Your task to perform on an android device: turn off picture-in-picture Image 0: 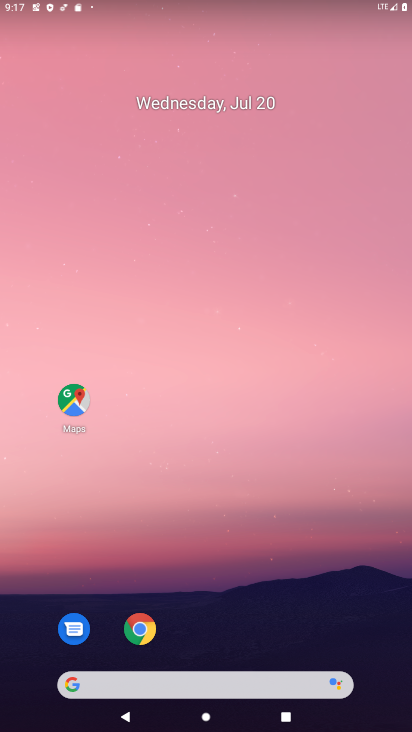
Step 0: press home button
Your task to perform on an android device: turn off picture-in-picture Image 1: 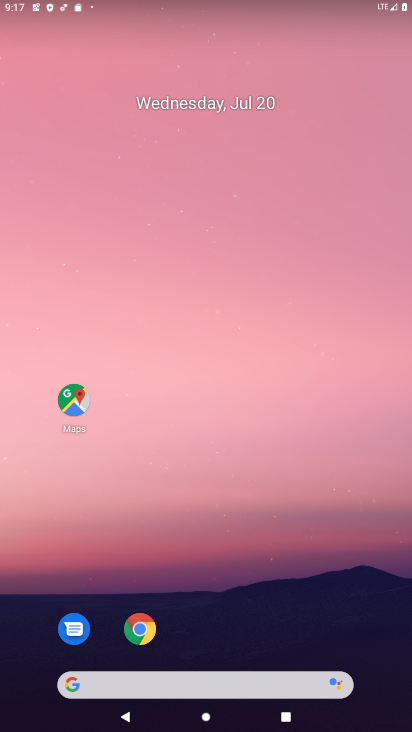
Step 1: click (134, 622)
Your task to perform on an android device: turn off picture-in-picture Image 2: 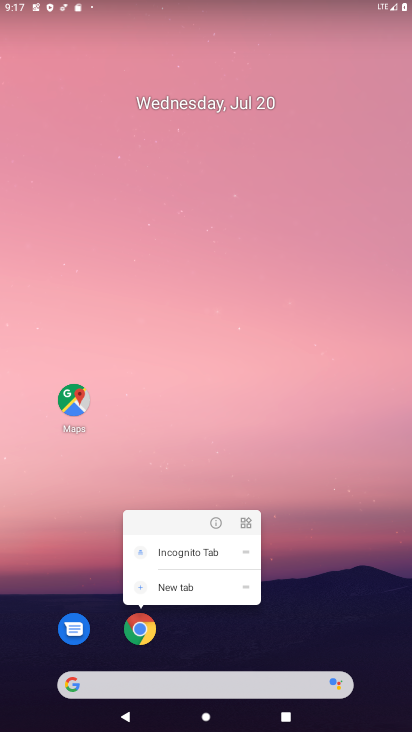
Step 2: click (214, 525)
Your task to perform on an android device: turn off picture-in-picture Image 3: 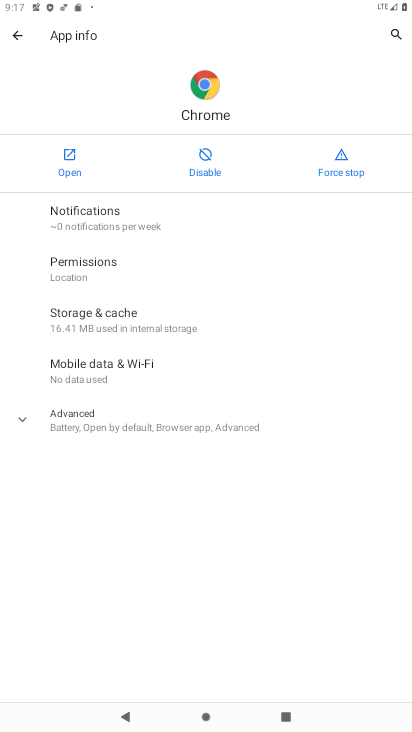
Step 3: click (65, 279)
Your task to perform on an android device: turn off picture-in-picture Image 4: 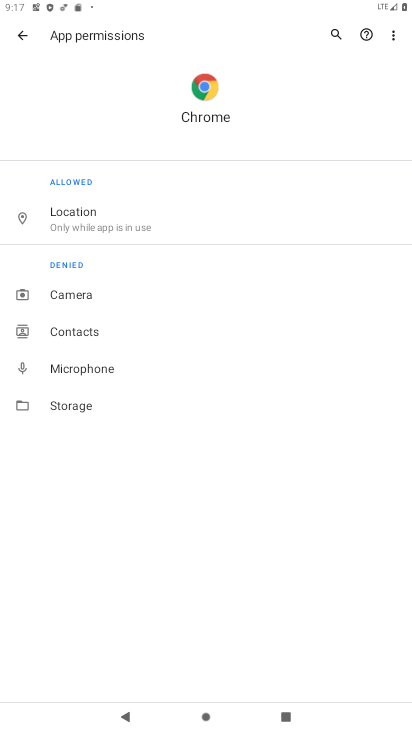
Step 4: click (19, 21)
Your task to perform on an android device: turn off picture-in-picture Image 5: 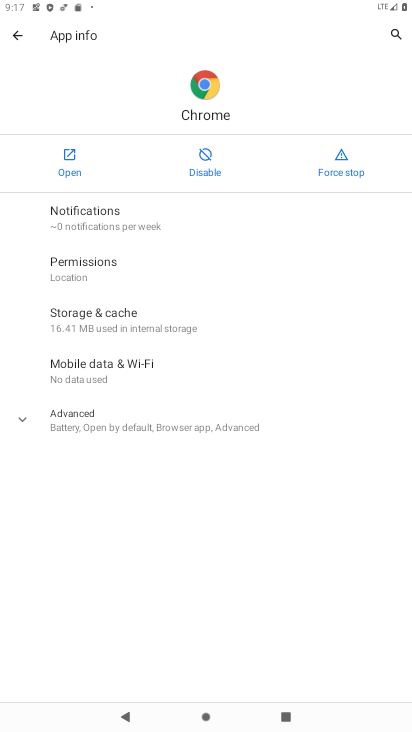
Step 5: click (112, 429)
Your task to perform on an android device: turn off picture-in-picture Image 6: 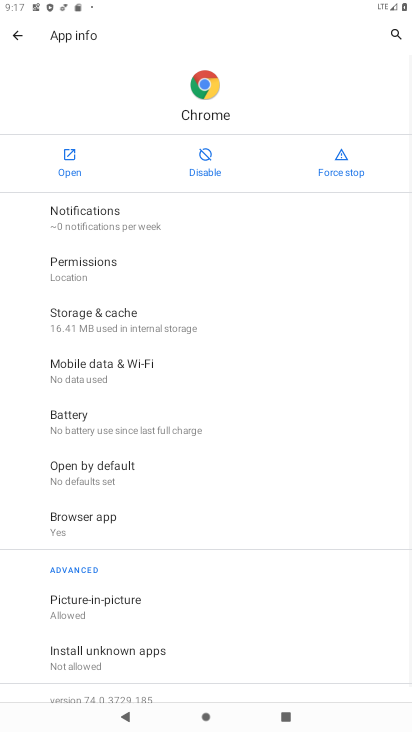
Step 6: click (60, 603)
Your task to perform on an android device: turn off picture-in-picture Image 7: 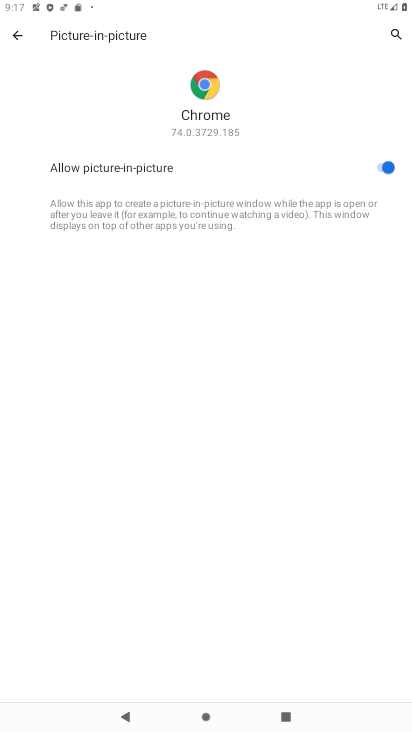
Step 7: click (376, 171)
Your task to perform on an android device: turn off picture-in-picture Image 8: 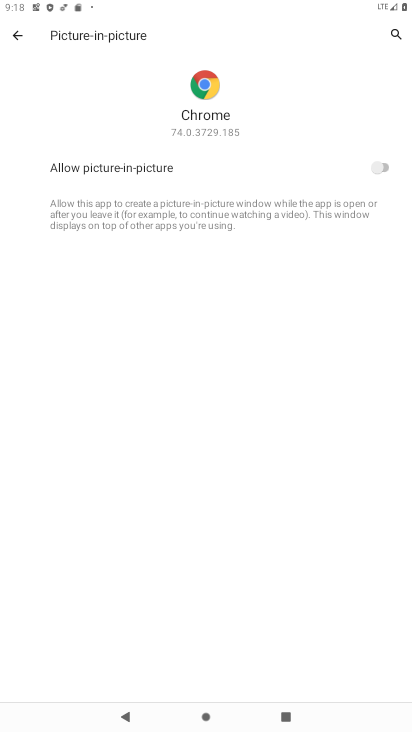
Step 8: task complete